Your task to perform on an android device: Open the phone app and click the voicemail tab. Image 0: 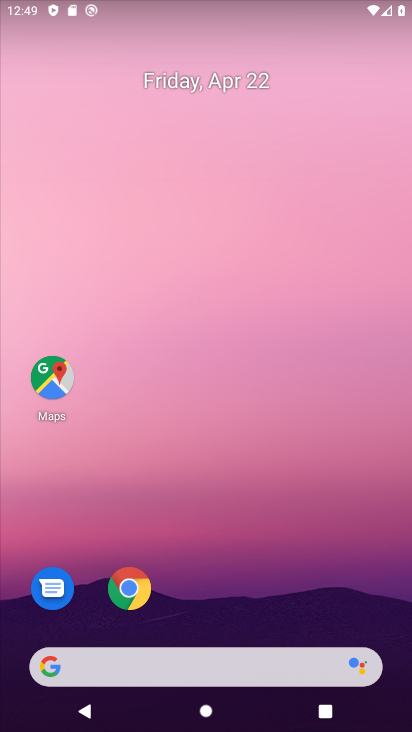
Step 0: drag from (212, 695) to (304, 113)
Your task to perform on an android device: Open the phone app and click the voicemail tab. Image 1: 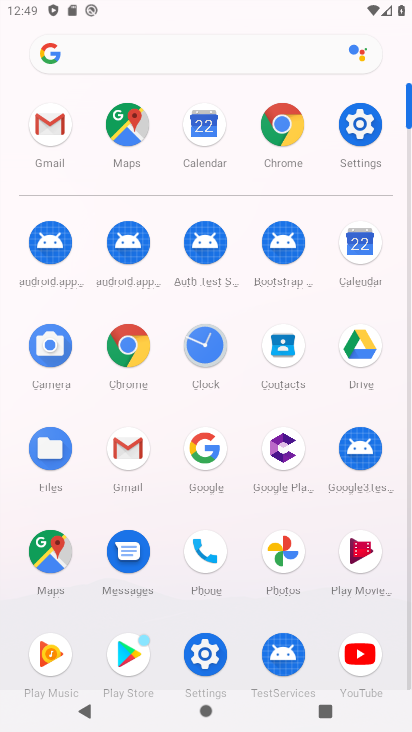
Step 1: click (196, 533)
Your task to perform on an android device: Open the phone app and click the voicemail tab. Image 2: 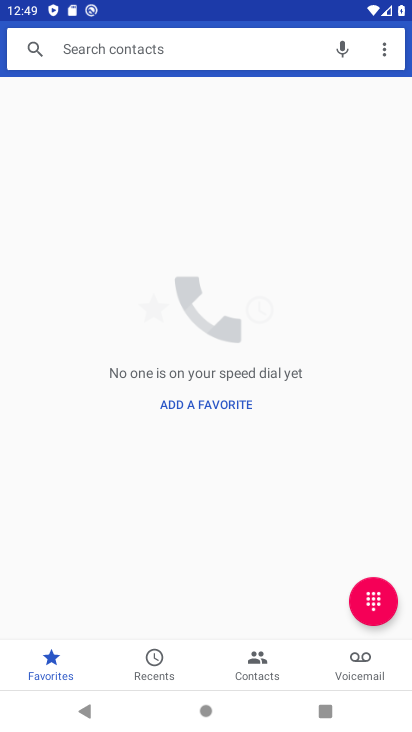
Step 2: click (360, 655)
Your task to perform on an android device: Open the phone app and click the voicemail tab. Image 3: 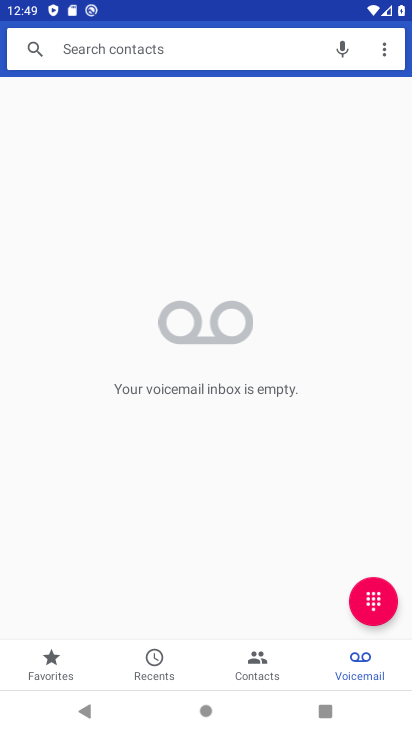
Step 3: task complete